Your task to perform on an android device: Go to Reddit.com Image 0: 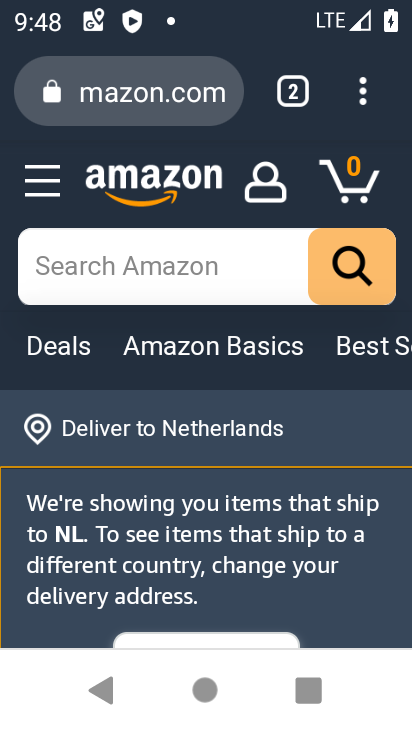
Step 0: click (305, 91)
Your task to perform on an android device: Go to Reddit.com Image 1: 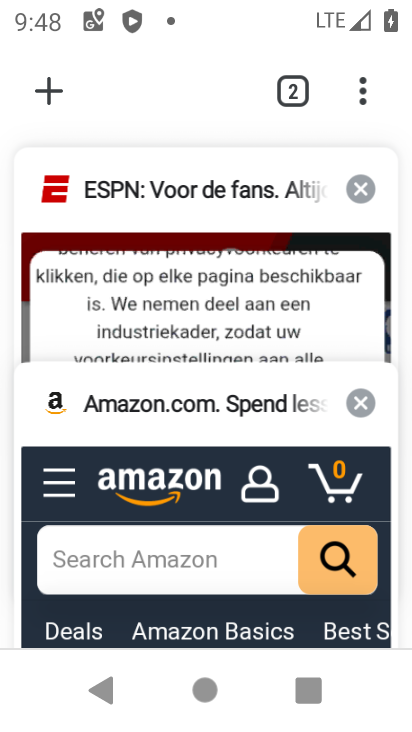
Step 1: click (53, 86)
Your task to perform on an android device: Go to Reddit.com Image 2: 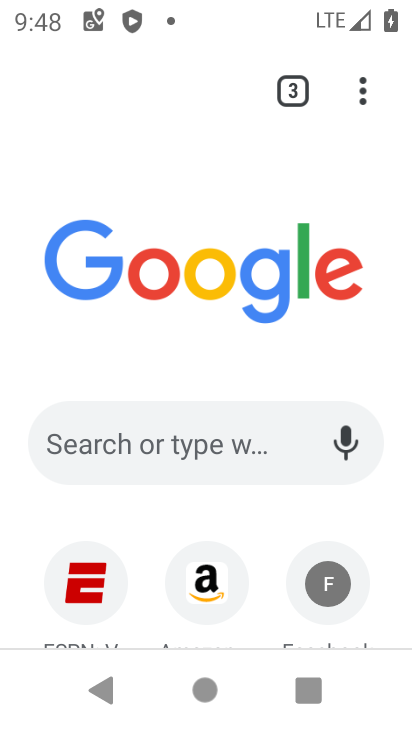
Step 2: click (240, 440)
Your task to perform on an android device: Go to Reddit.com Image 3: 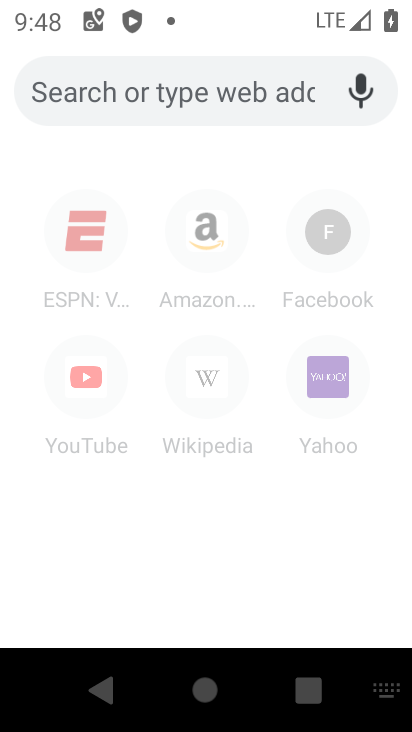
Step 3: type "reddit"
Your task to perform on an android device: Go to Reddit.com Image 4: 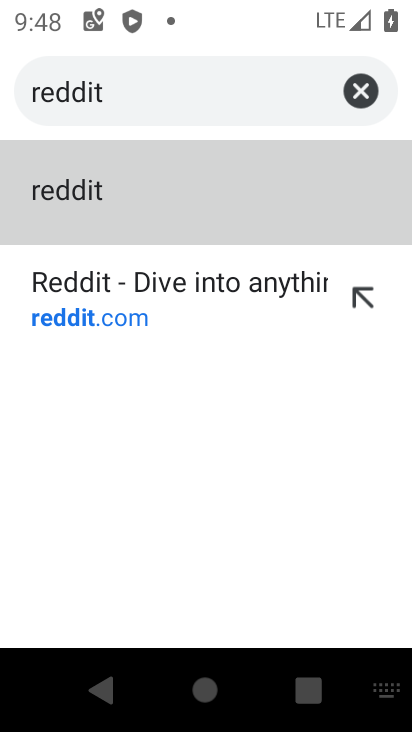
Step 4: click (97, 295)
Your task to perform on an android device: Go to Reddit.com Image 5: 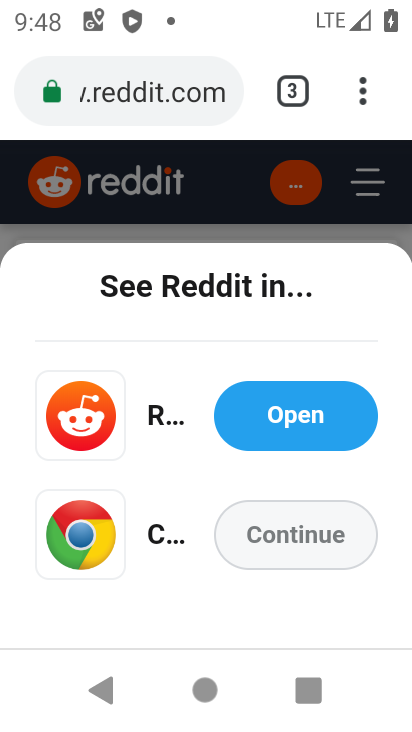
Step 5: click (306, 538)
Your task to perform on an android device: Go to Reddit.com Image 6: 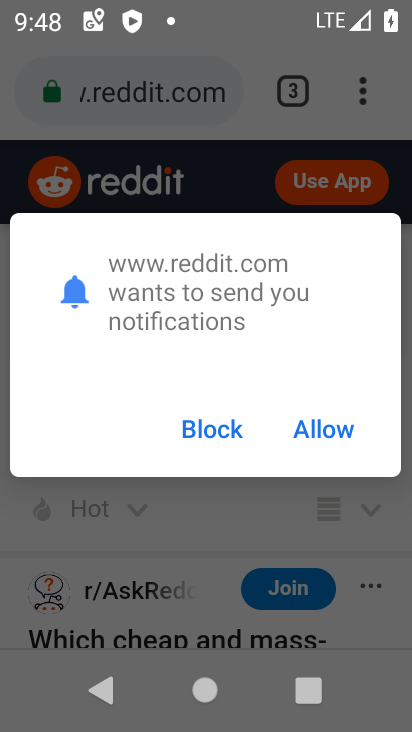
Step 6: task complete